Your task to perform on an android device: Open calendar and show me the first week of next month Image 0: 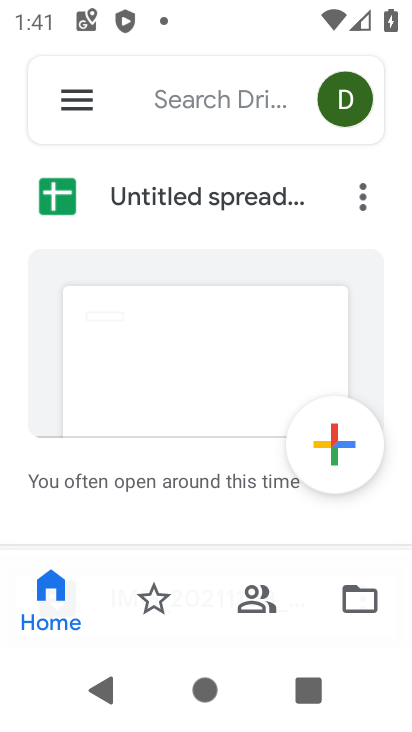
Step 0: press home button
Your task to perform on an android device: Open calendar and show me the first week of next month Image 1: 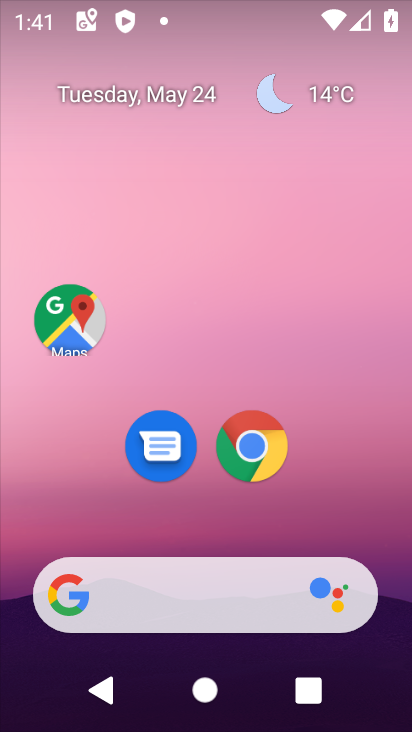
Step 1: drag from (76, 551) to (180, 22)
Your task to perform on an android device: Open calendar and show me the first week of next month Image 2: 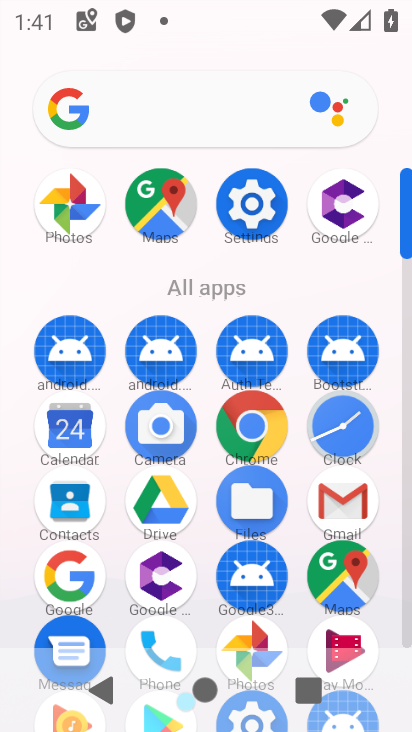
Step 2: click (61, 444)
Your task to perform on an android device: Open calendar and show me the first week of next month Image 3: 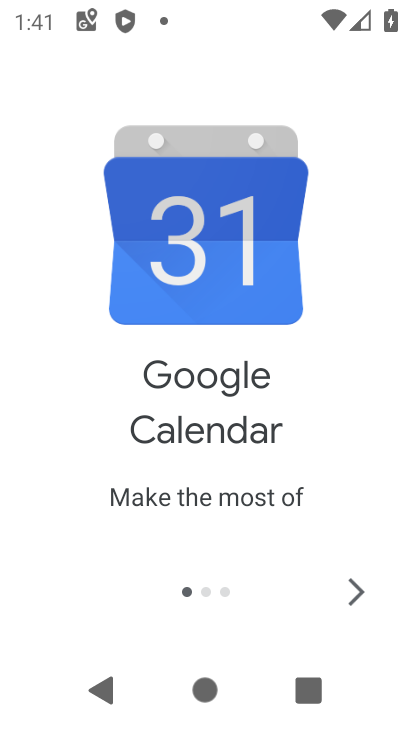
Step 3: click (376, 610)
Your task to perform on an android device: Open calendar and show me the first week of next month Image 4: 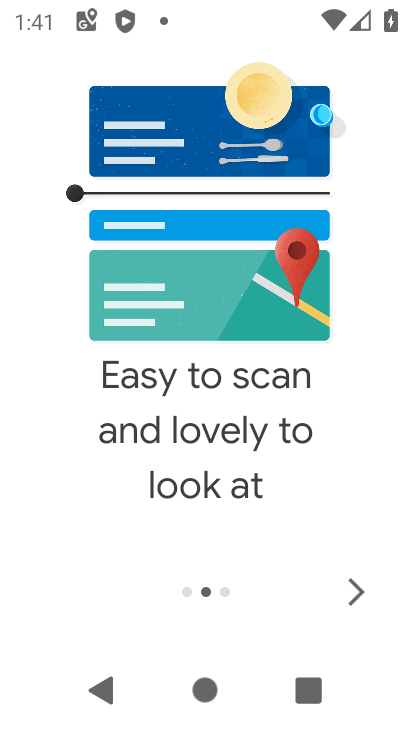
Step 4: click (369, 601)
Your task to perform on an android device: Open calendar and show me the first week of next month Image 5: 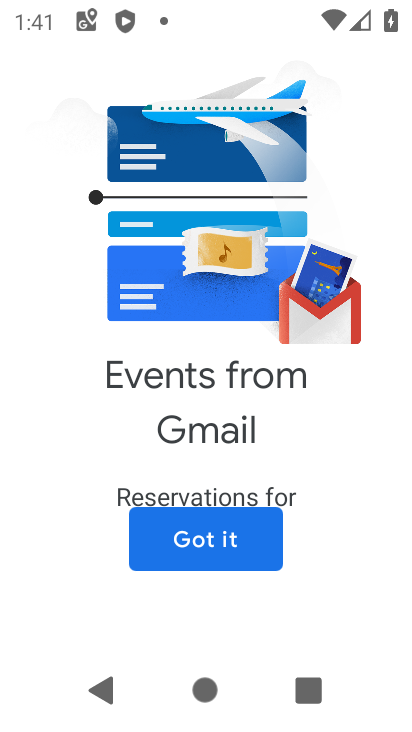
Step 5: click (227, 545)
Your task to perform on an android device: Open calendar and show me the first week of next month Image 6: 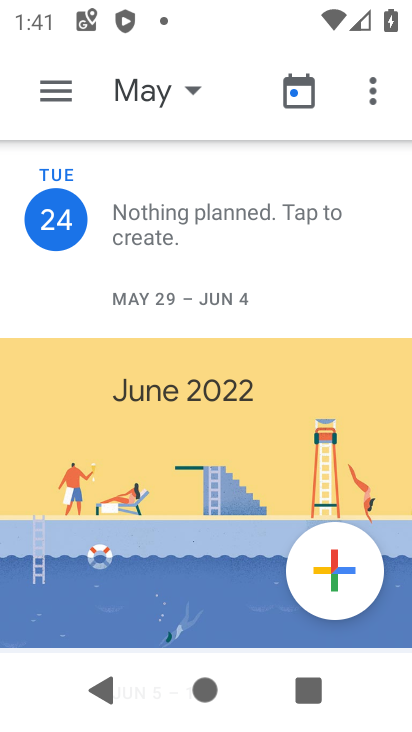
Step 6: click (151, 102)
Your task to perform on an android device: Open calendar and show me the first week of next month Image 7: 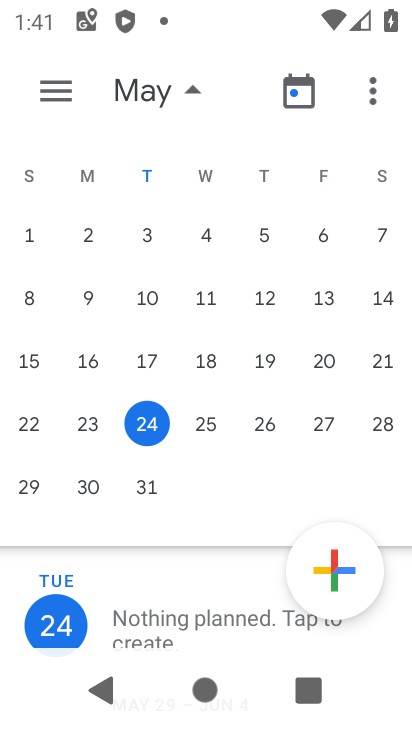
Step 7: drag from (327, 427) to (5, 224)
Your task to perform on an android device: Open calendar and show me the first week of next month Image 8: 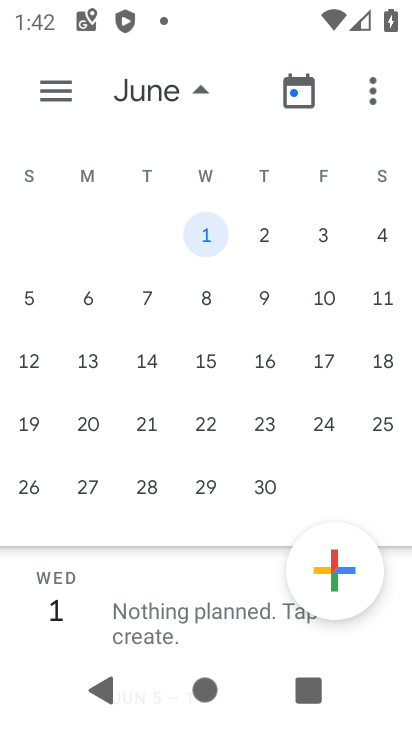
Step 8: drag from (381, 271) to (344, 242)
Your task to perform on an android device: Open calendar and show me the first week of next month Image 9: 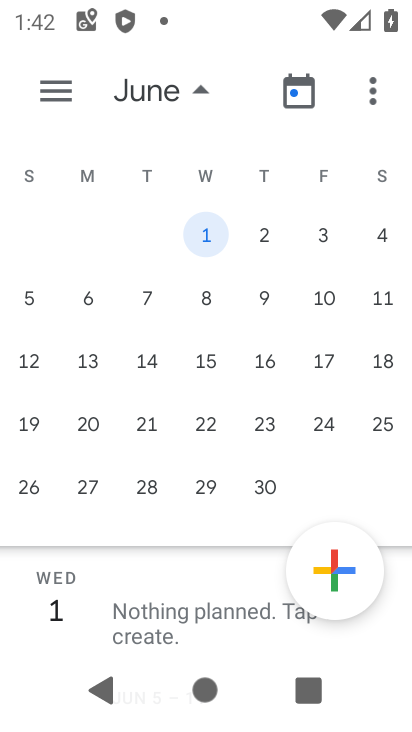
Step 9: click (27, 303)
Your task to perform on an android device: Open calendar and show me the first week of next month Image 10: 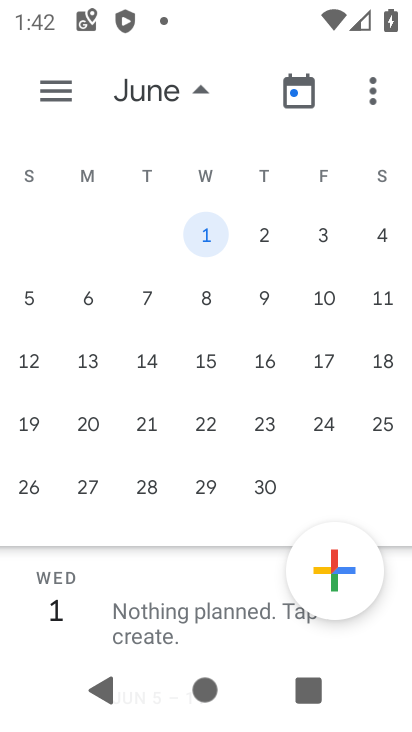
Step 10: click (31, 290)
Your task to perform on an android device: Open calendar and show me the first week of next month Image 11: 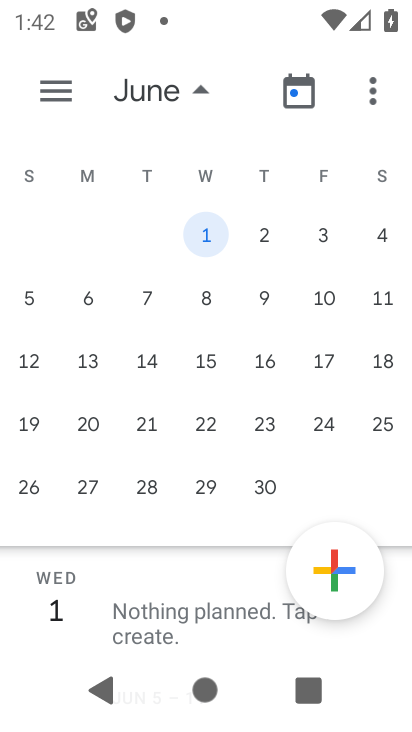
Step 11: click (34, 295)
Your task to perform on an android device: Open calendar and show me the first week of next month Image 12: 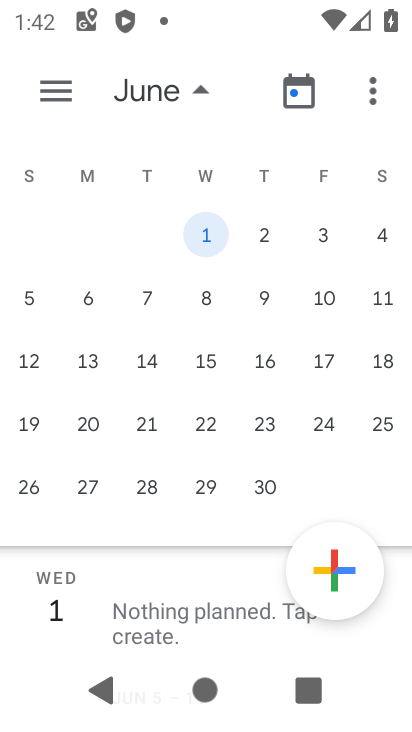
Step 12: click (32, 299)
Your task to perform on an android device: Open calendar and show me the first week of next month Image 13: 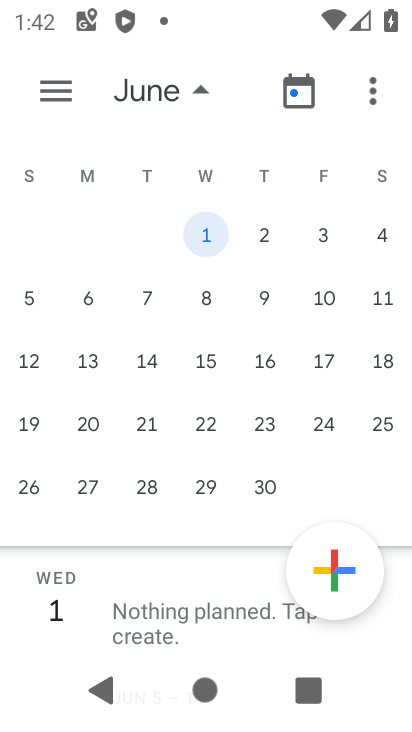
Step 13: click (31, 300)
Your task to perform on an android device: Open calendar and show me the first week of next month Image 14: 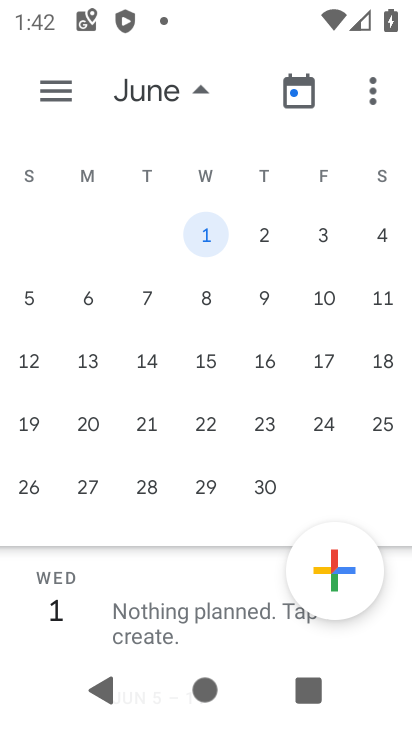
Step 14: click (30, 306)
Your task to perform on an android device: Open calendar and show me the first week of next month Image 15: 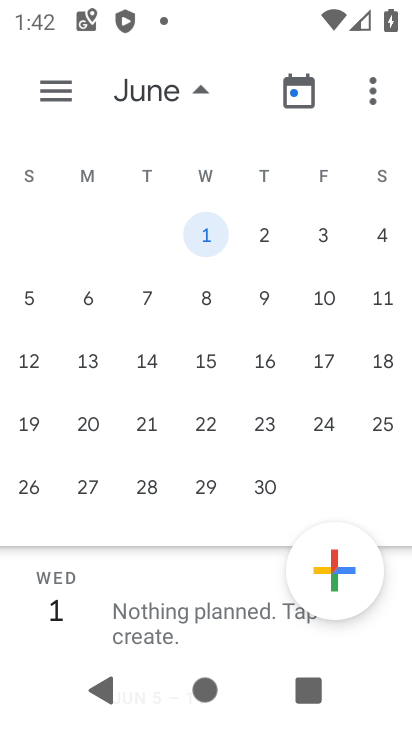
Step 15: click (47, 309)
Your task to perform on an android device: Open calendar and show me the first week of next month Image 16: 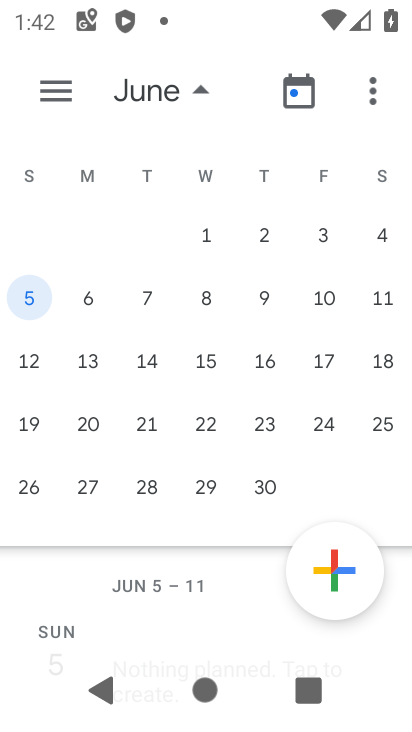
Step 16: click (53, 92)
Your task to perform on an android device: Open calendar and show me the first week of next month Image 17: 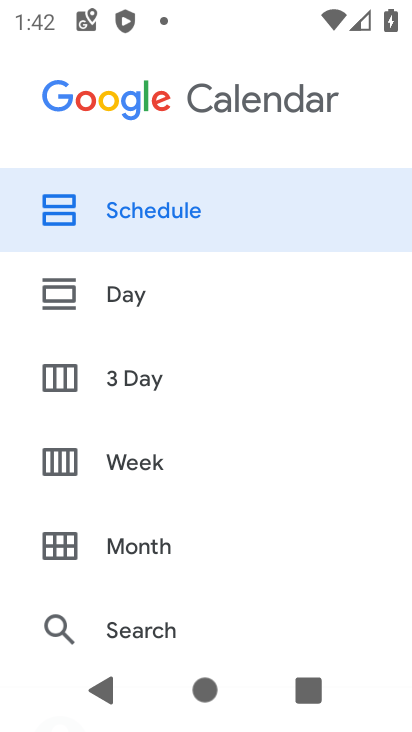
Step 17: click (155, 477)
Your task to perform on an android device: Open calendar and show me the first week of next month Image 18: 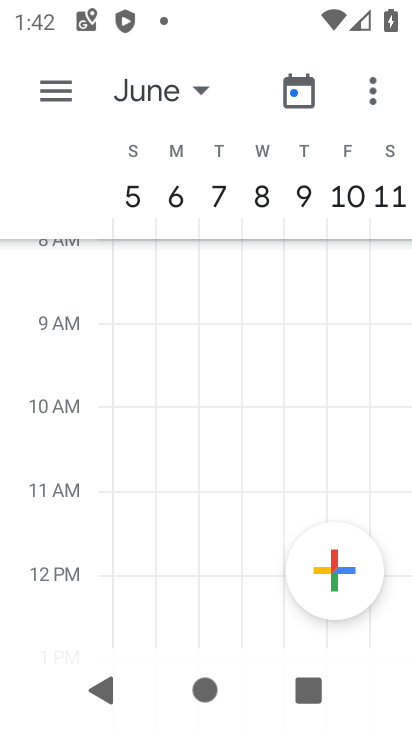
Step 18: task complete